Your task to perform on an android device: open app "ColorNote Notepad Notes" (install if not already installed) and go to login screen Image 0: 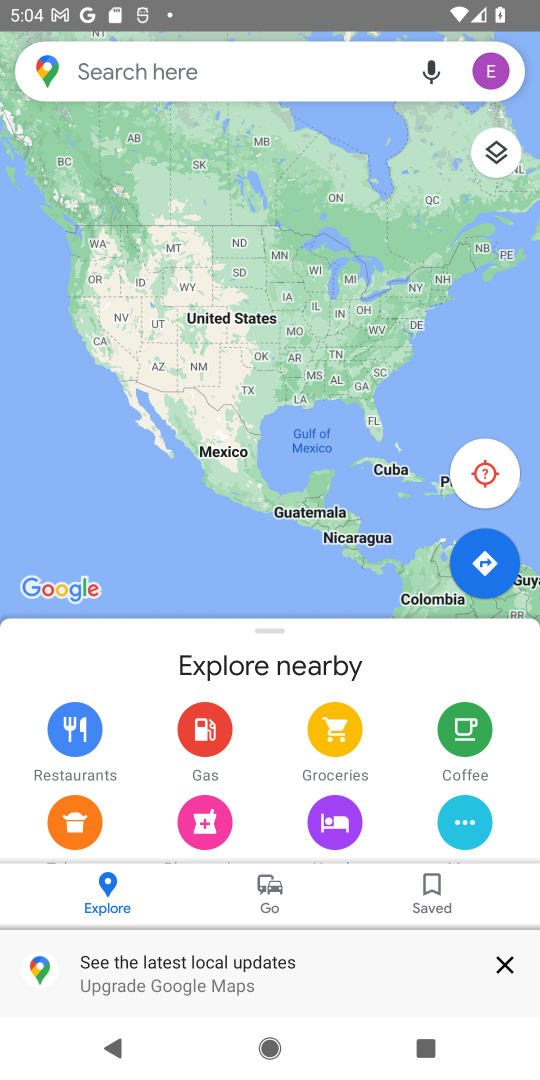
Step 0: press home button
Your task to perform on an android device: open app "ColorNote Notepad Notes" (install if not already installed) and go to login screen Image 1: 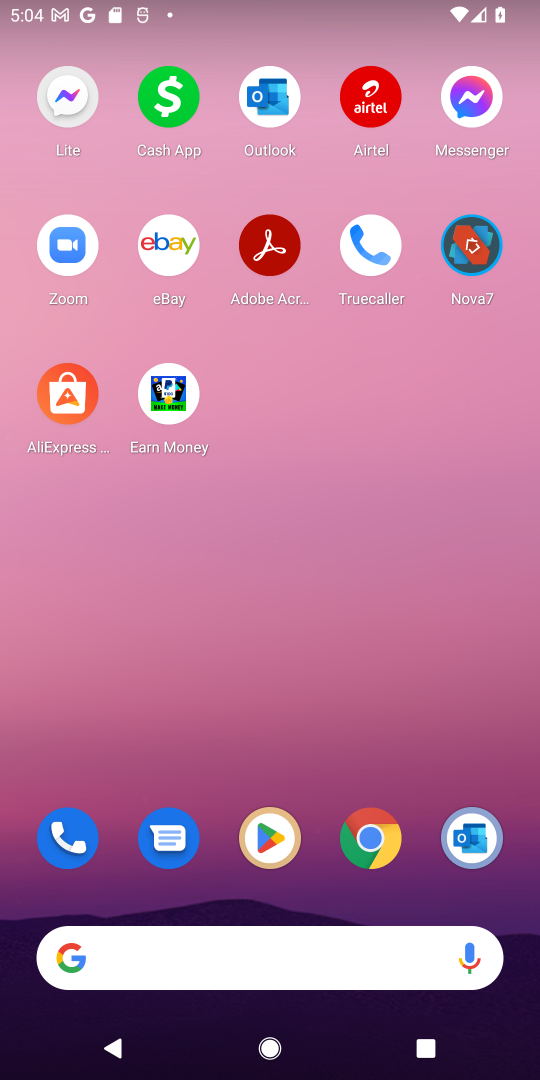
Step 1: drag from (209, 911) to (340, 204)
Your task to perform on an android device: open app "ColorNote Notepad Notes" (install if not already installed) and go to login screen Image 2: 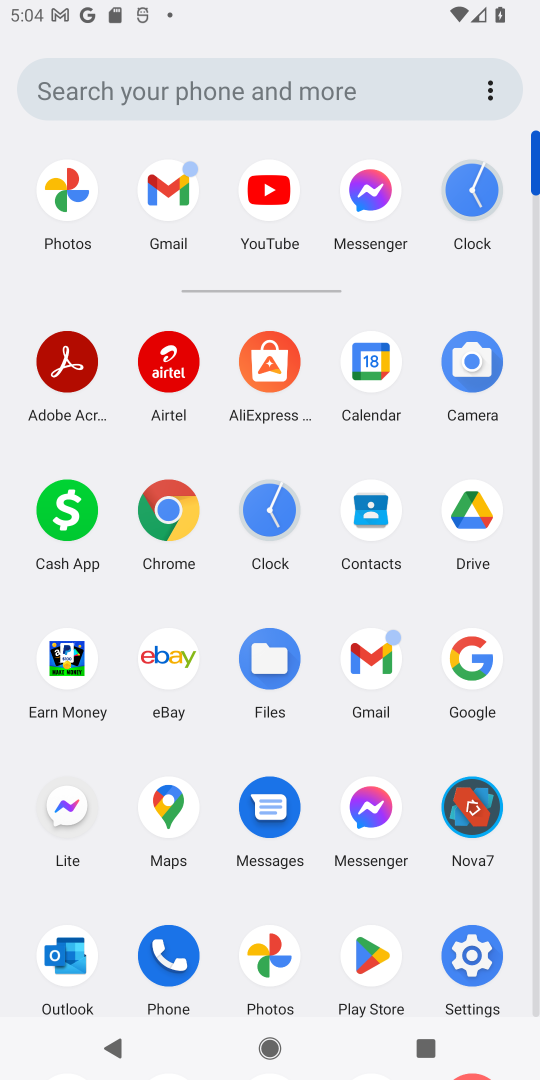
Step 2: click (368, 956)
Your task to perform on an android device: open app "ColorNote Notepad Notes" (install if not already installed) and go to login screen Image 3: 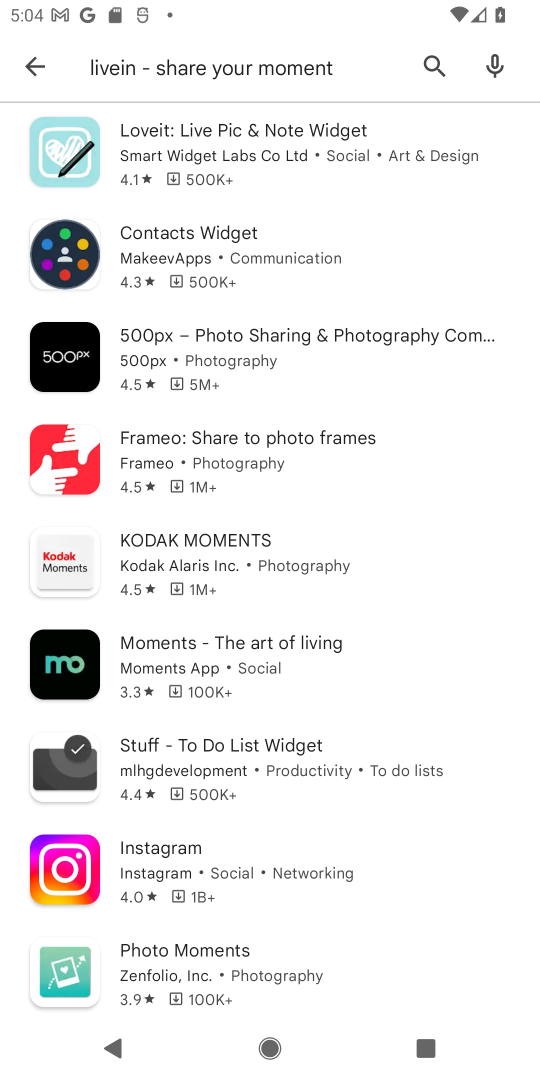
Step 3: press back button
Your task to perform on an android device: open app "ColorNote Notepad Notes" (install if not already installed) and go to login screen Image 4: 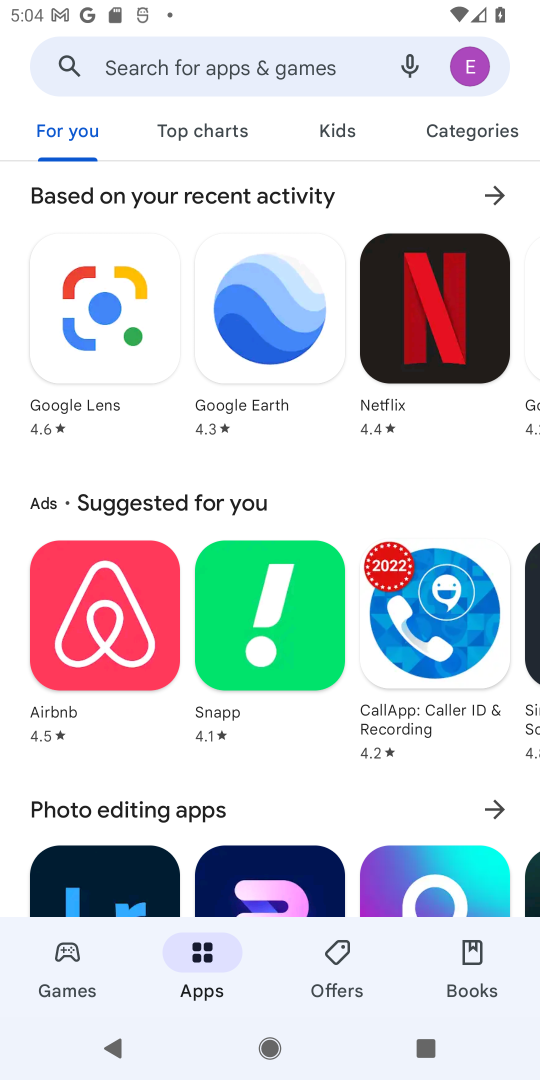
Step 4: click (332, 64)
Your task to perform on an android device: open app "ColorNote Notepad Notes" (install if not already installed) and go to login screen Image 5: 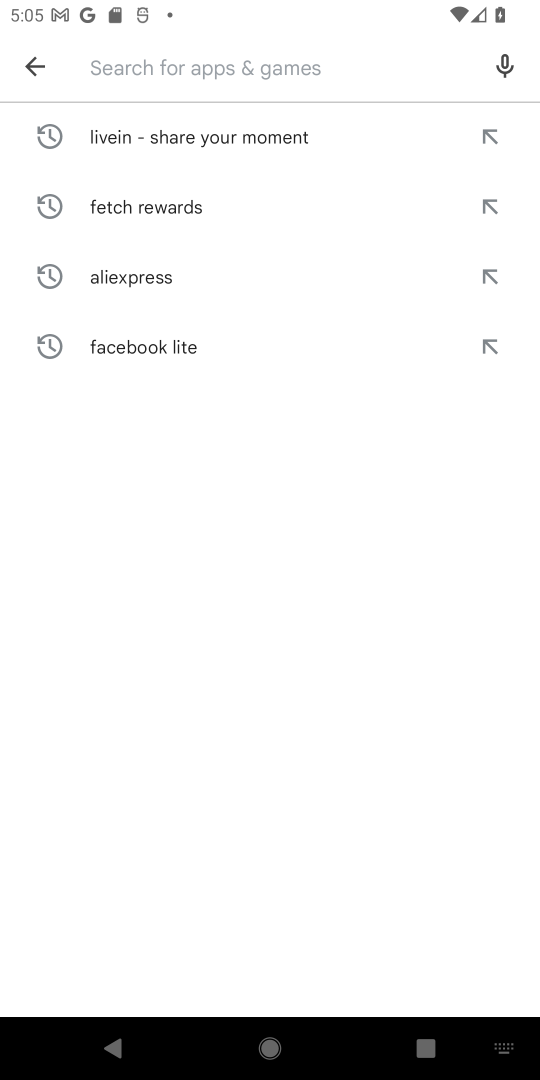
Step 5: click (229, 80)
Your task to perform on an android device: open app "ColorNote Notepad Notes" (install if not already installed) and go to login screen Image 6: 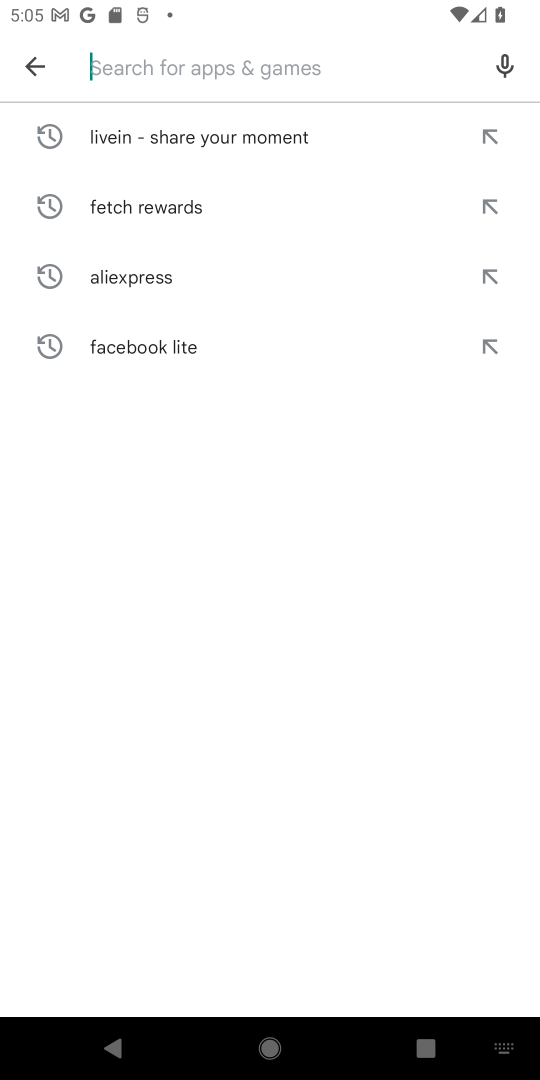
Step 6: type "ColorNote Notepad Notes"
Your task to perform on an android device: open app "ColorNote Notepad Notes" (install if not already installed) and go to login screen Image 7: 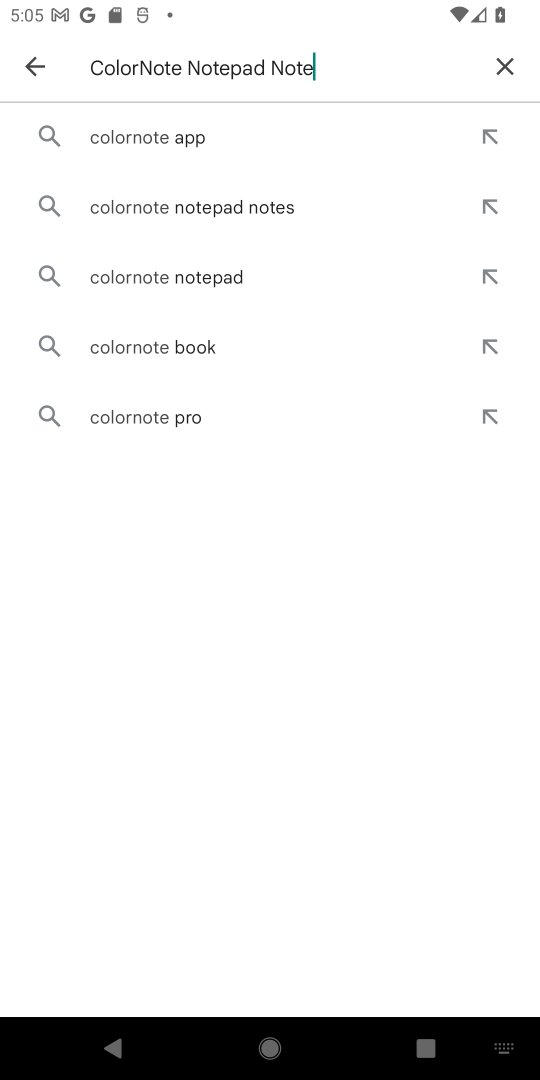
Step 7: type ""
Your task to perform on an android device: open app "ColorNote Notepad Notes" (install if not already installed) and go to login screen Image 8: 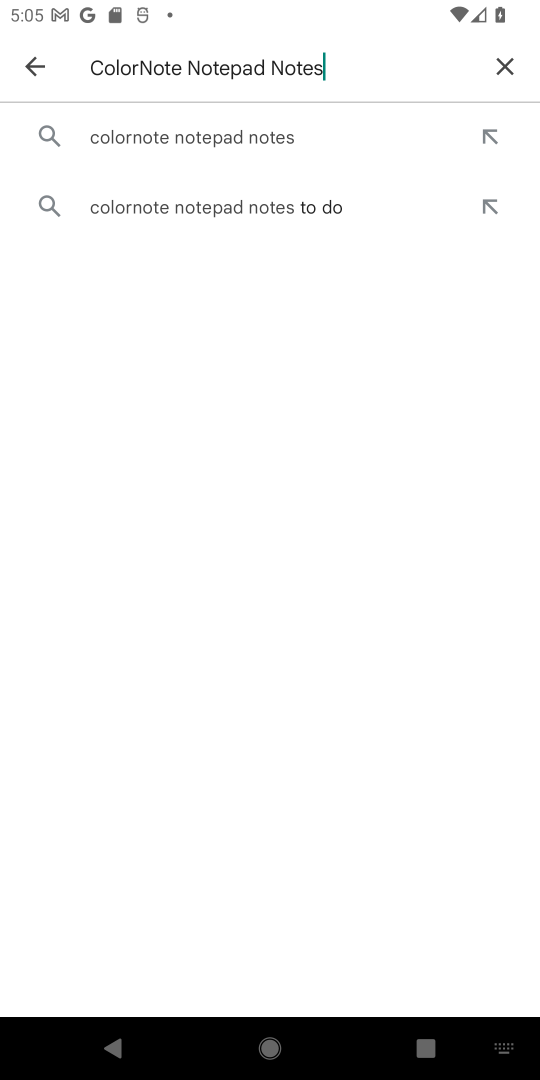
Step 8: click (173, 132)
Your task to perform on an android device: open app "ColorNote Notepad Notes" (install if not already installed) and go to login screen Image 9: 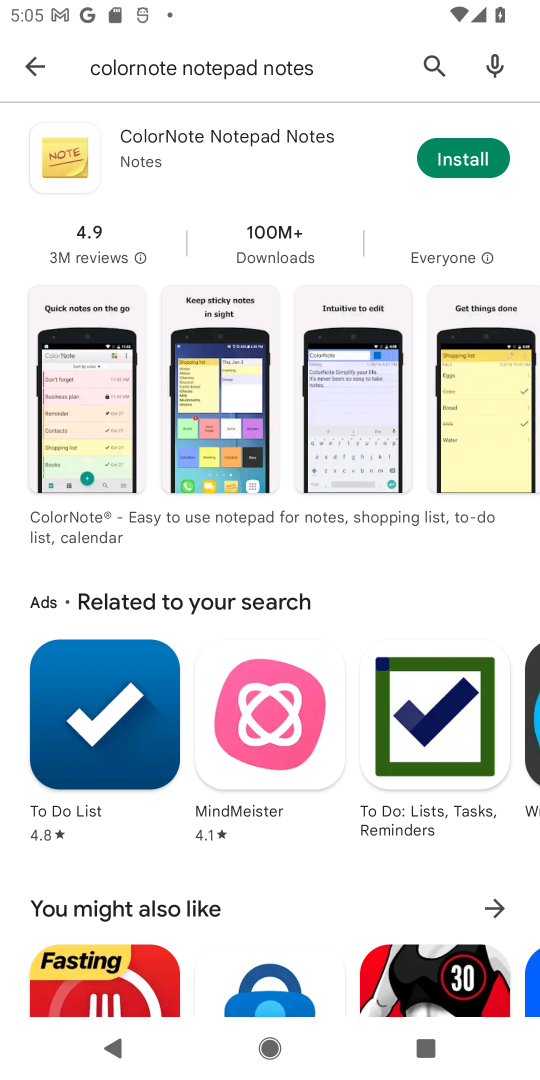
Step 9: click (455, 164)
Your task to perform on an android device: open app "ColorNote Notepad Notes" (install if not already installed) and go to login screen Image 10: 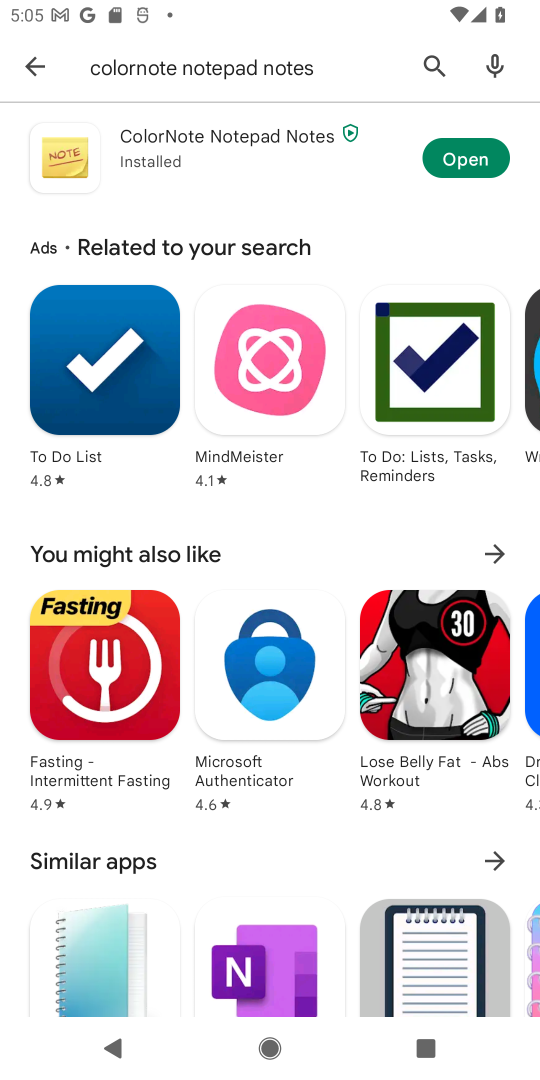
Step 10: click (455, 164)
Your task to perform on an android device: open app "ColorNote Notepad Notes" (install if not already installed) and go to login screen Image 11: 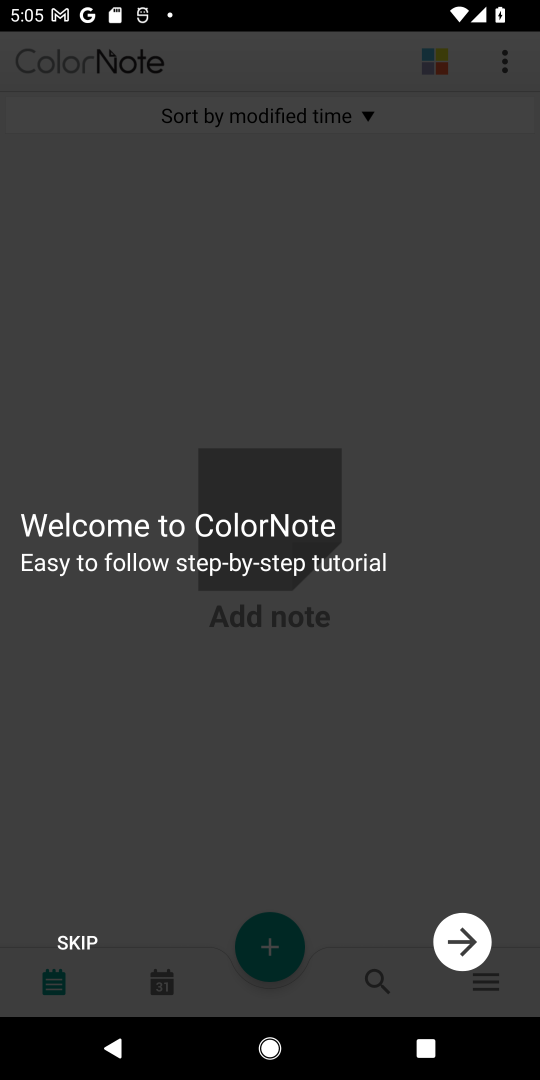
Step 11: click (79, 947)
Your task to perform on an android device: open app "ColorNote Notepad Notes" (install if not already installed) and go to login screen Image 12: 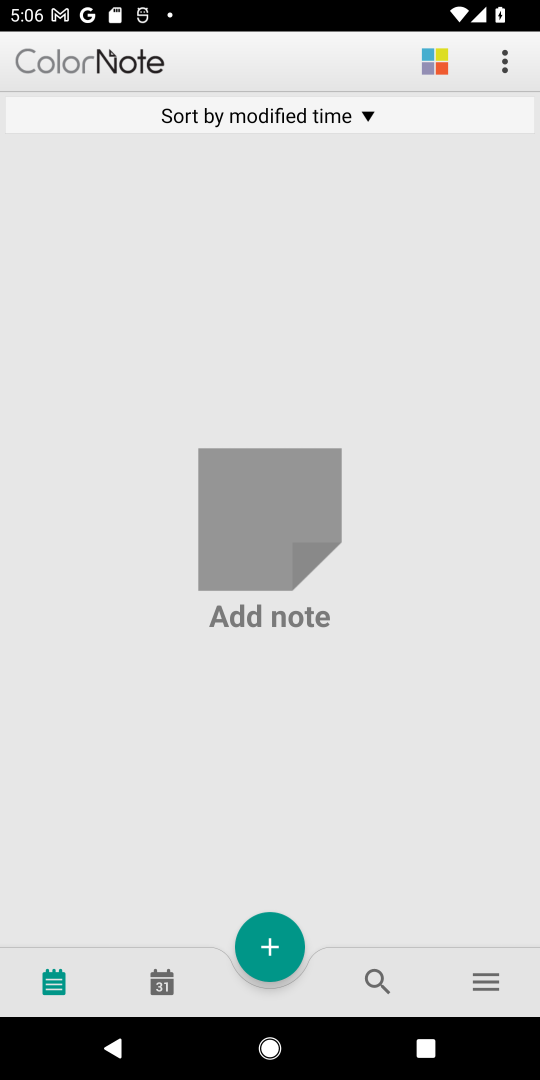
Step 12: click (481, 987)
Your task to perform on an android device: open app "ColorNote Notepad Notes" (install if not already installed) and go to login screen Image 13: 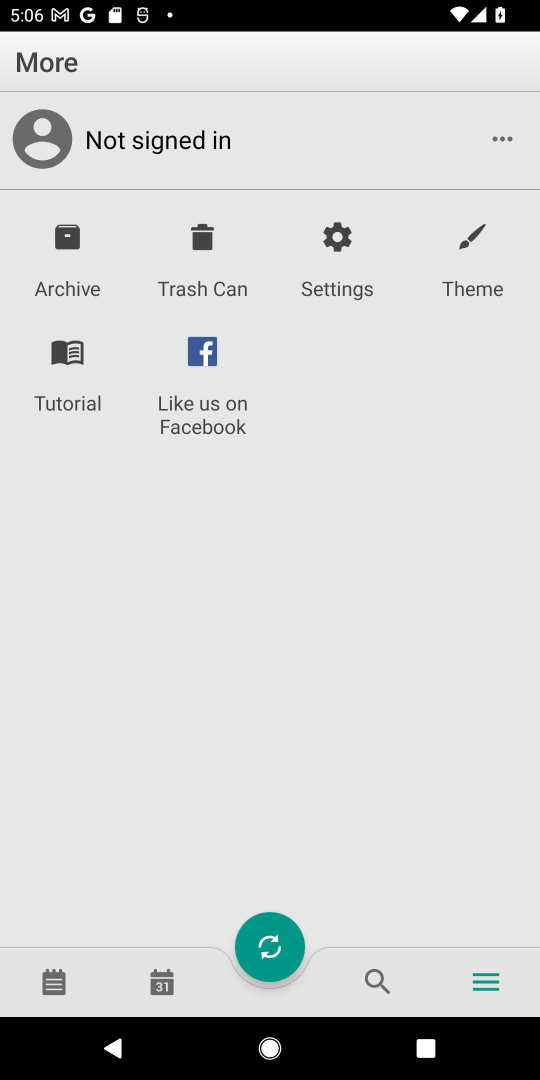
Step 13: click (92, 149)
Your task to perform on an android device: open app "ColorNote Notepad Notes" (install if not already installed) and go to login screen Image 14: 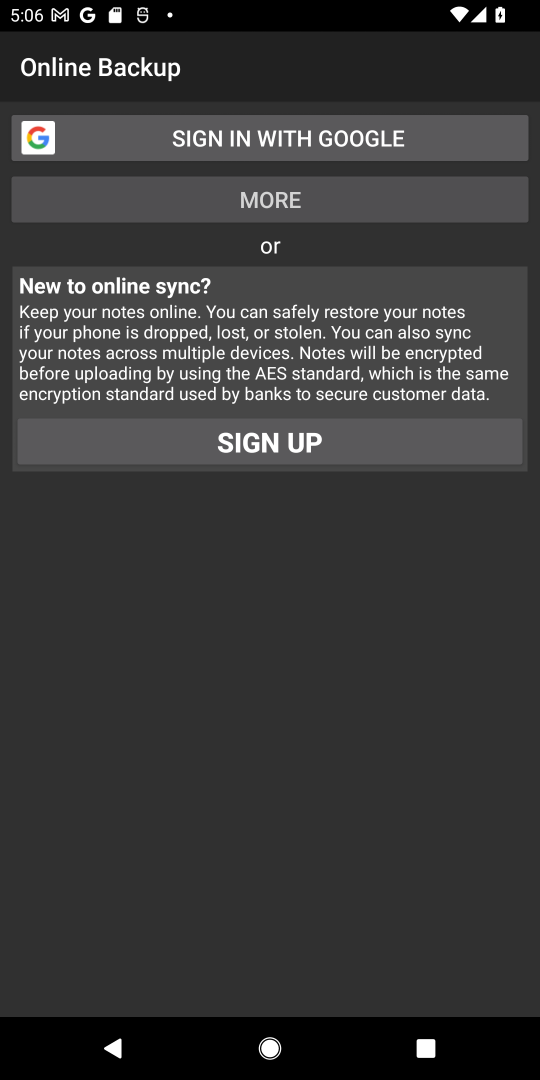
Step 14: click (292, 447)
Your task to perform on an android device: open app "ColorNote Notepad Notes" (install if not already installed) and go to login screen Image 15: 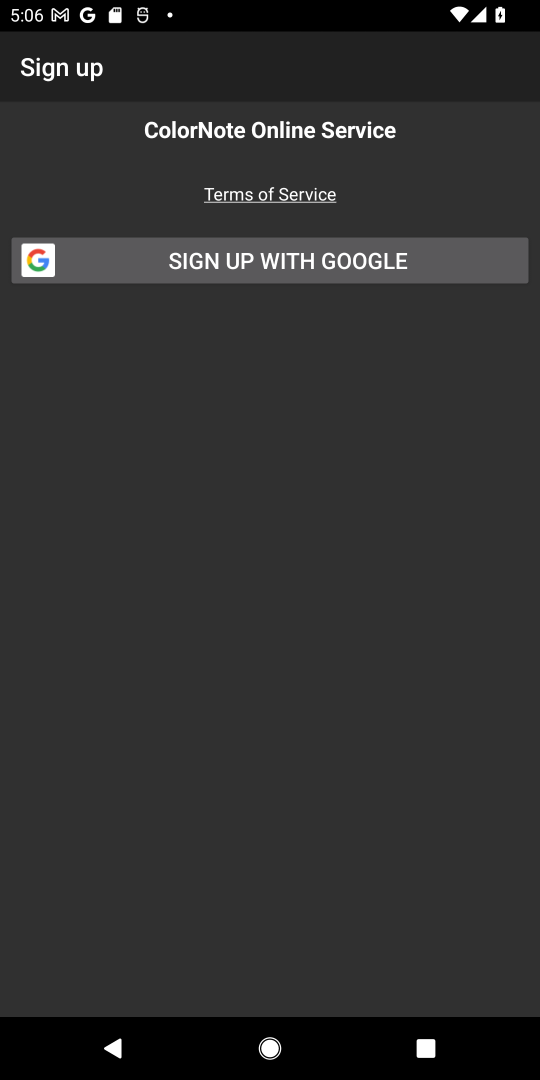
Step 15: task complete